Your task to perform on an android device: Open the map Image 0: 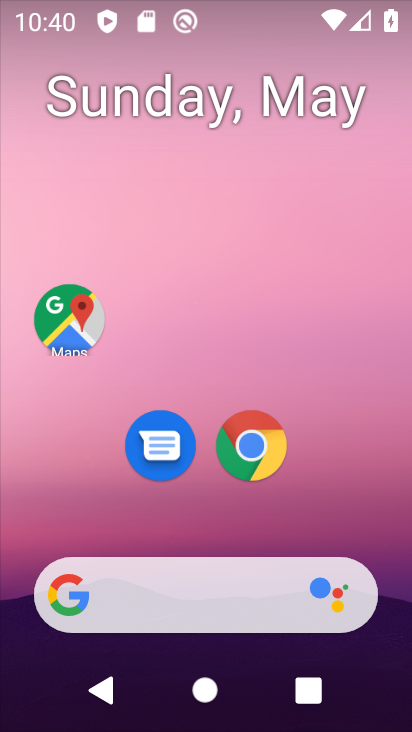
Step 0: click (63, 324)
Your task to perform on an android device: Open the map Image 1: 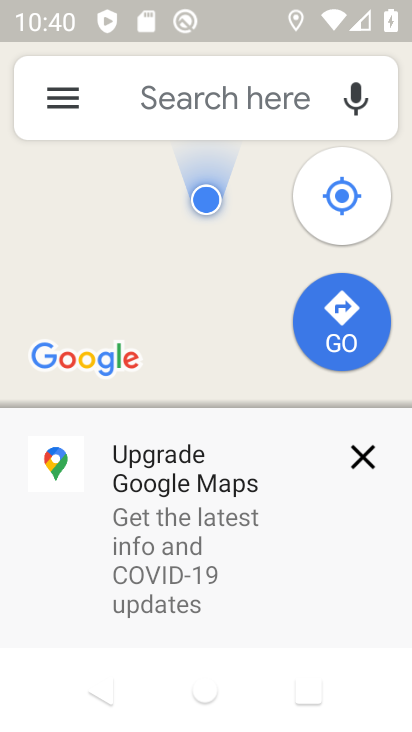
Step 1: click (365, 461)
Your task to perform on an android device: Open the map Image 2: 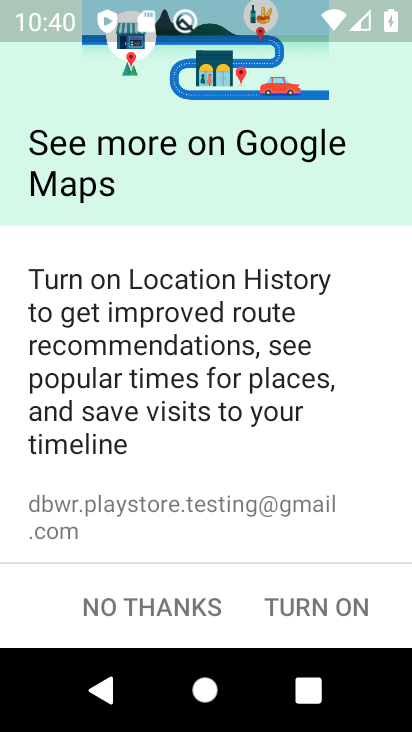
Step 2: click (169, 603)
Your task to perform on an android device: Open the map Image 3: 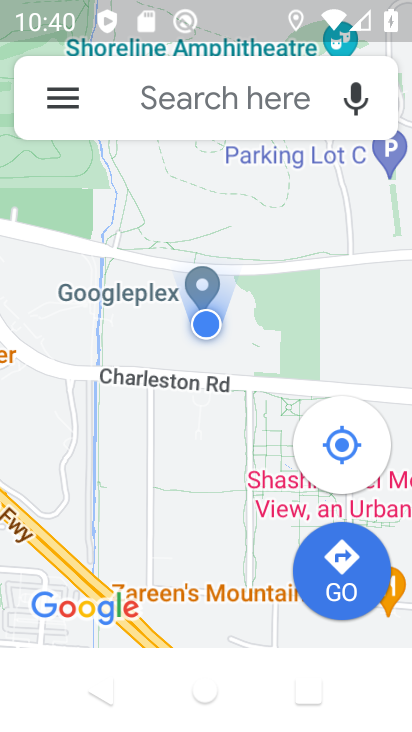
Step 3: task complete